Your task to perform on an android device: empty trash in the gmail app Image 0: 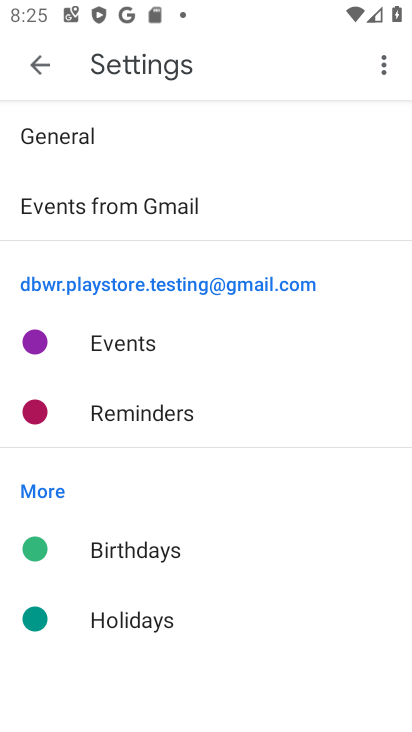
Step 0: press home button
Your task to perform on an android device: empty trash in the gmail app Image 1: 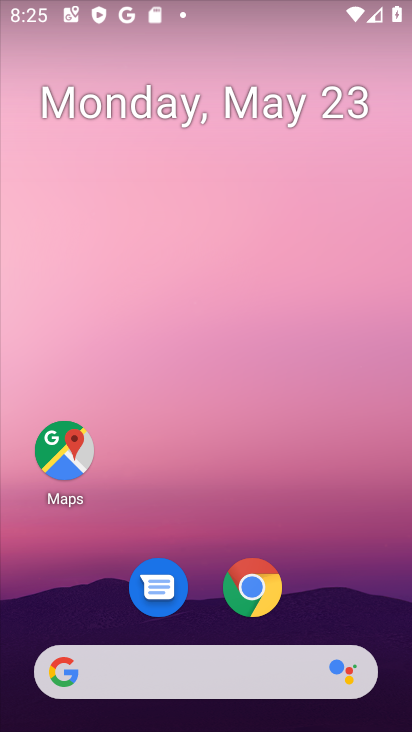
Step 1: drag from (93, 585) to (234, 84)
Your task to perform on an android device: empty trash in the gmail app Image 2: 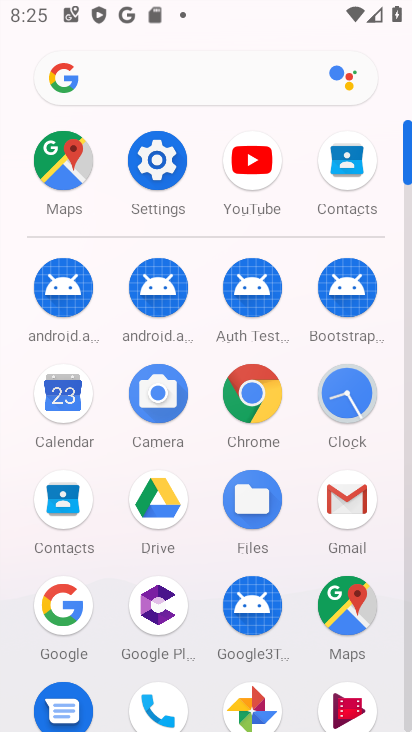
Step 2: click (353, 500)
Your task to perform on an android device: empty trash in the gmail app Image 3: 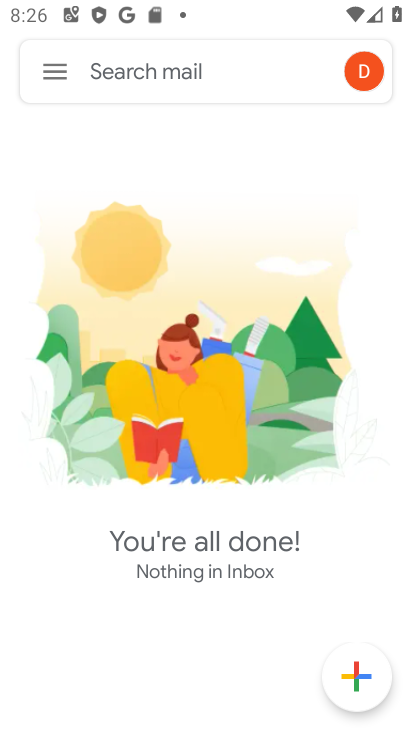
Step 3: click (58, 62)
Your task to perform on an android device: empty trash in the gmail app Image 4: 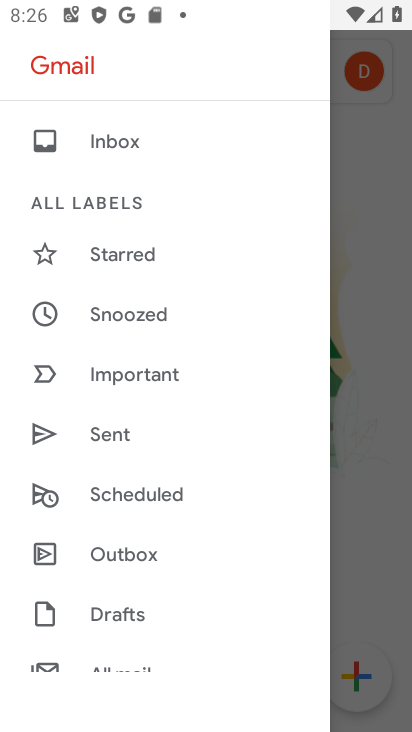
Step 4: drag from (129, 630) to (164, 277)
Your task to perform on an android device: empty trash in the gmail app Image 5: 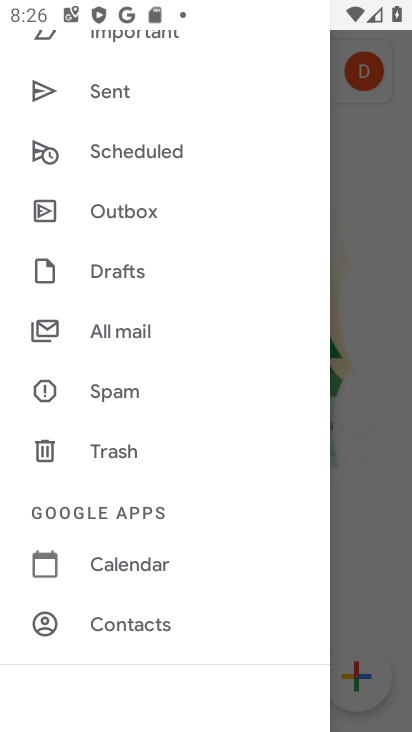
Step 5: click (133, 448)
Your task to perform on an android device: empty trash in the gmail app Image 6: 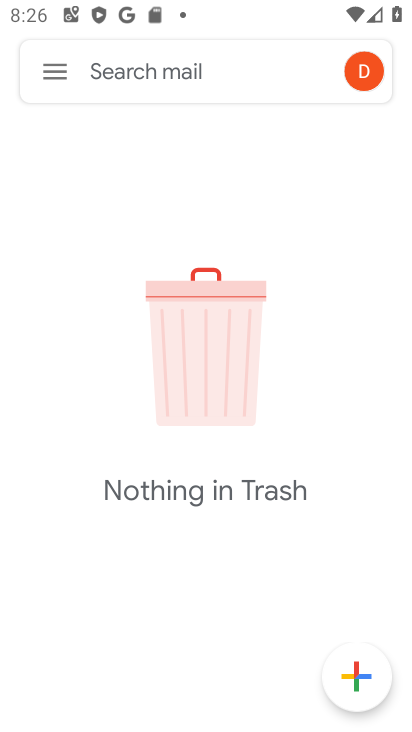
Step 6: task complete